Your task to perform on an android device: check android version Image 0: 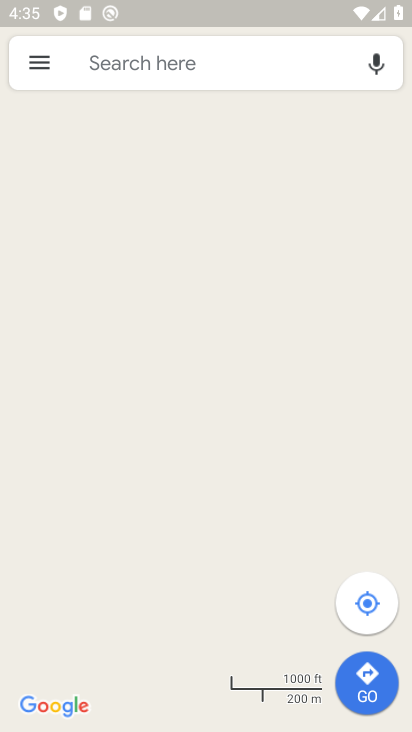
Step 0: press home button
Your task to perform on an android device: check android version Image 1: 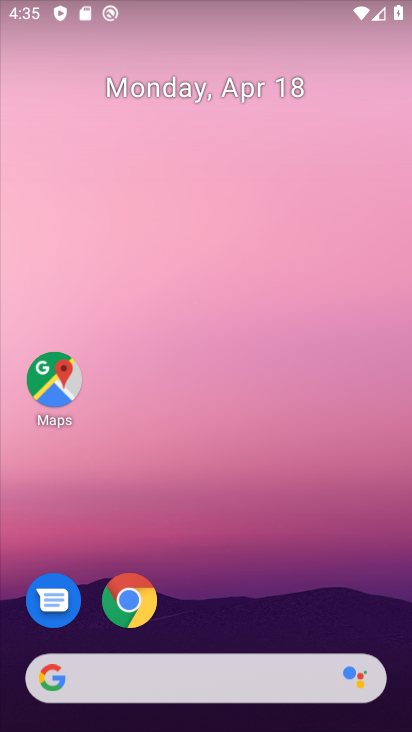
Step 1: drag from (228, 620) to (252, 1)
Your task to perform on an android device: check android version Image 2: 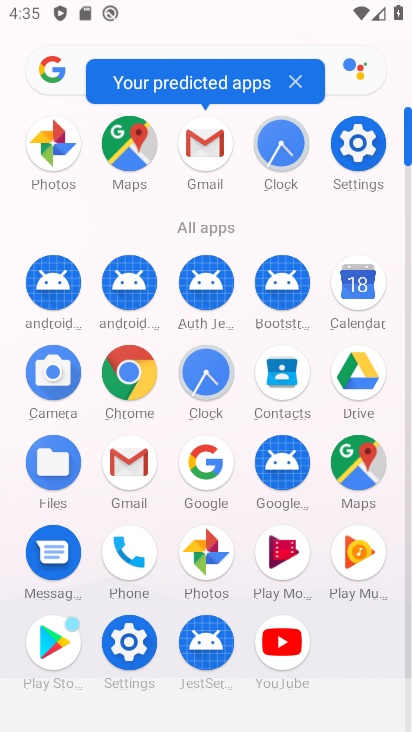
Step 2: click (357, 164)
Your task to perform on an android device: check android version Image 3: 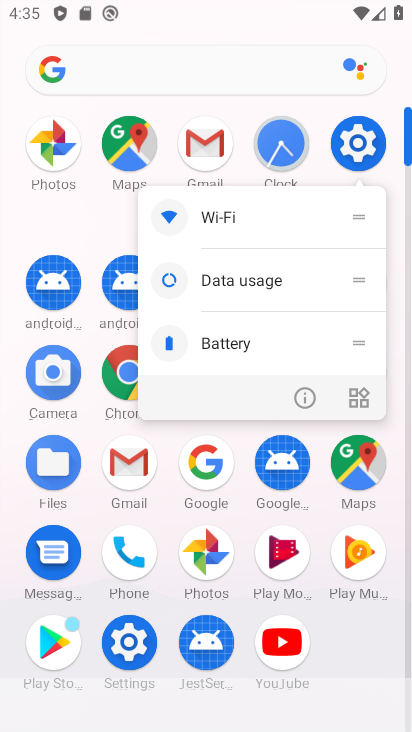
Step 3: click (360, 142)
Your task to perform on an android device: check android version Image 4: 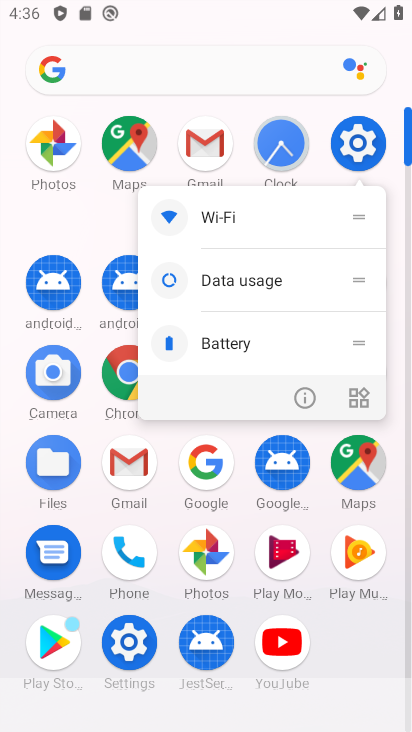
Step 4: click (358, 136)
Your task to perform on an android device: check android version Image 5: 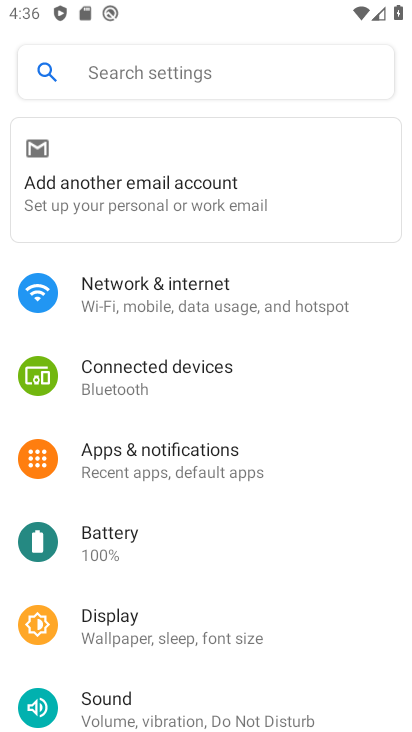
Step 5: drag from (169, 660) to (226, 84)
Your task to perform on an android device: check android version Image 6: 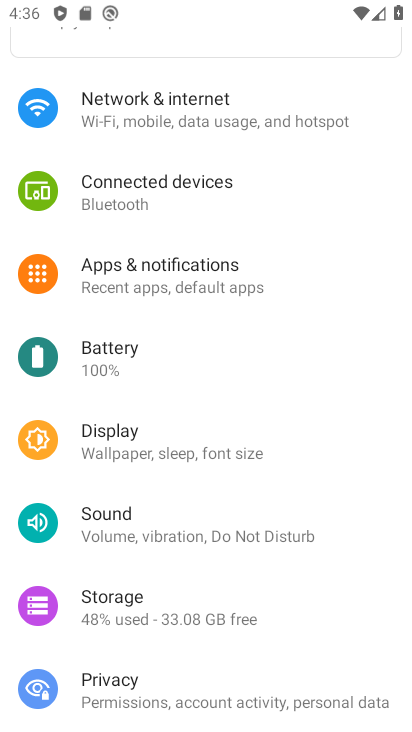
Step 6: drag from (198, 687) to (337, 15)
Your task to perform on an android device: check android version Image 7: 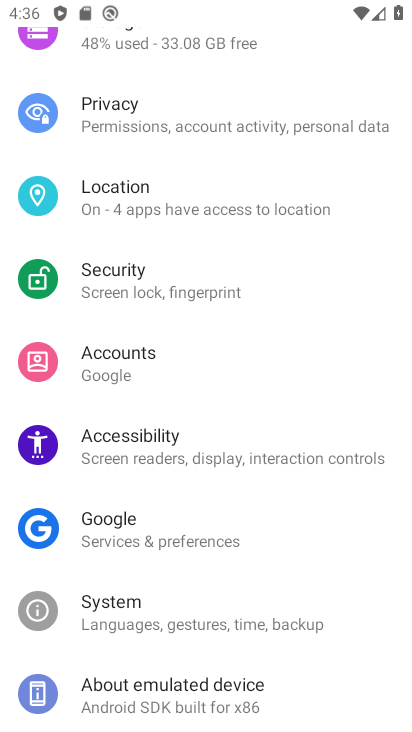
Step 7: drag from (175, 618) to (289, 4)
Your task to perform on an android device: check android version Image 8: 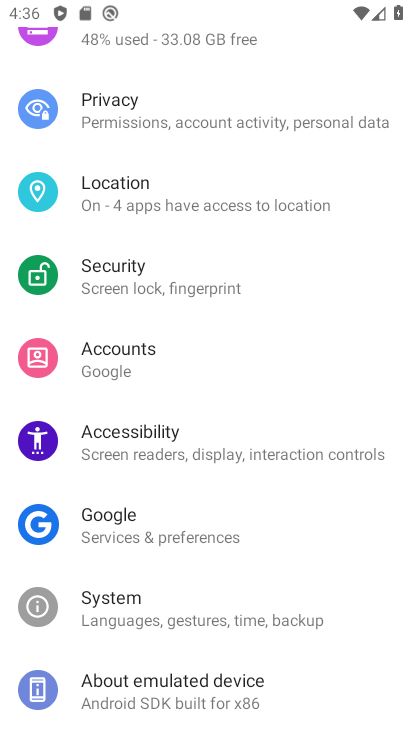
Step 8: click (181, 700)
Your task to perform on an android device: check android version Image 9: 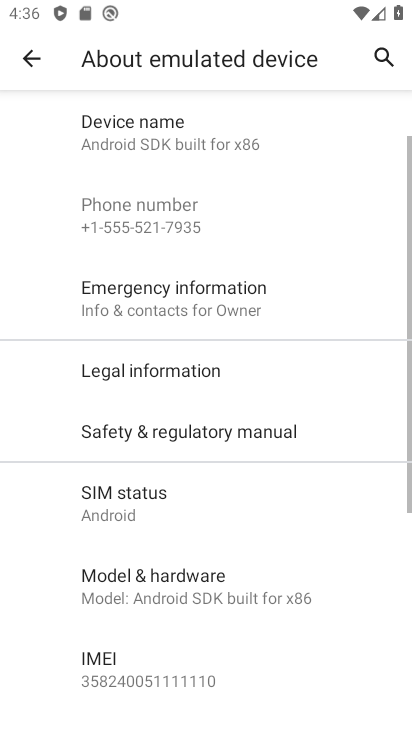
Step 9: drag from (157, 650) to (214, 1)
Your task to perform on an android device: check android version Image 10: 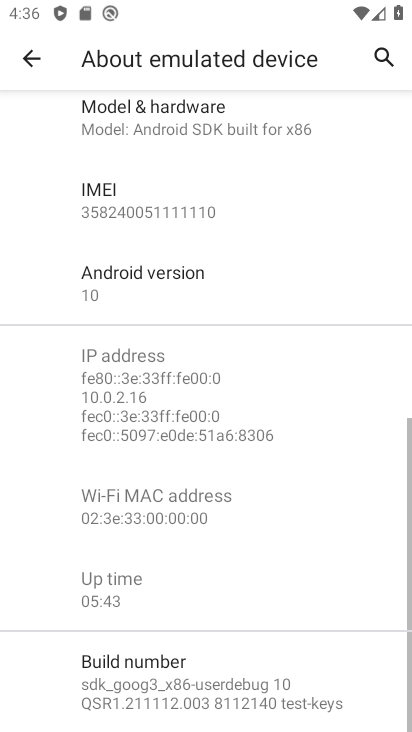
Step 10: drag from (126, 136) to (125, 274)
Your task to perform on an android device: check android version Image 11: 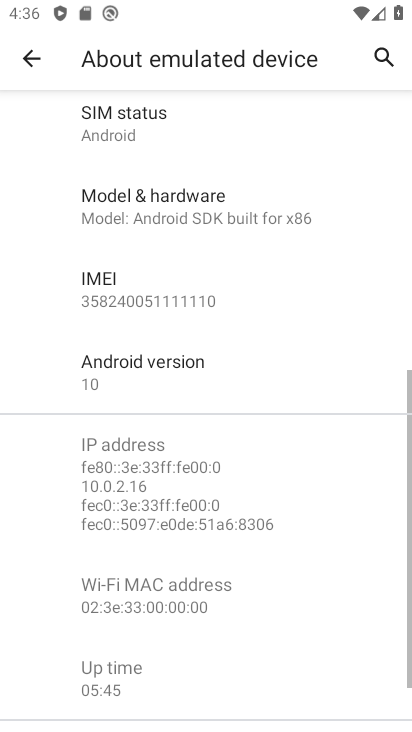
Step 11: click (139, 368)
Your task to perform on an android device: check android version Image 12: 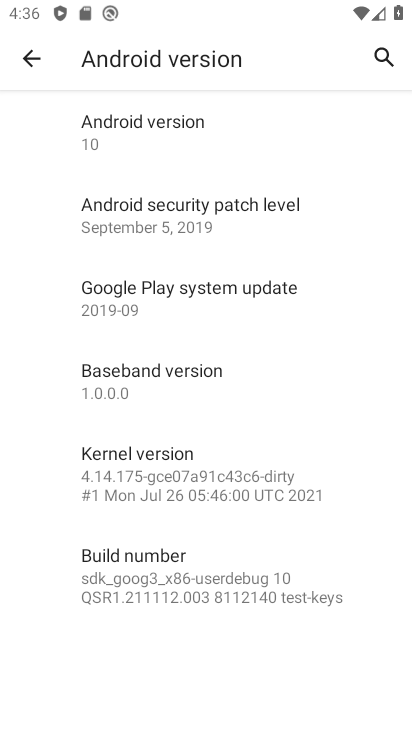
Step 12: task complete